Your task to perform on an android device: find photos in the google photos app Image 0: 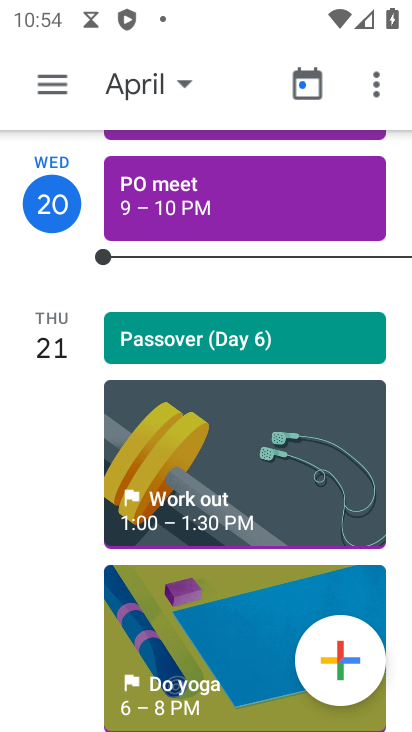
Step 0: press home button
Your task to perform on an android device: find photos in the google photos app Image 1: 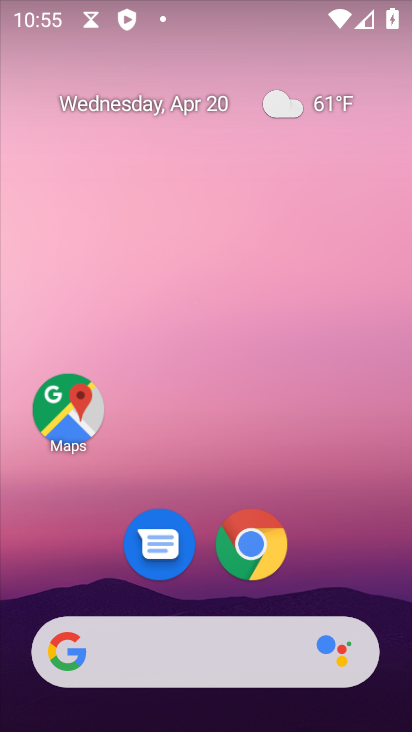
Step 1: drag from (159, 568) to (306, 100)
Your task to perform on an android device: find photos in the google photos app Image 2: 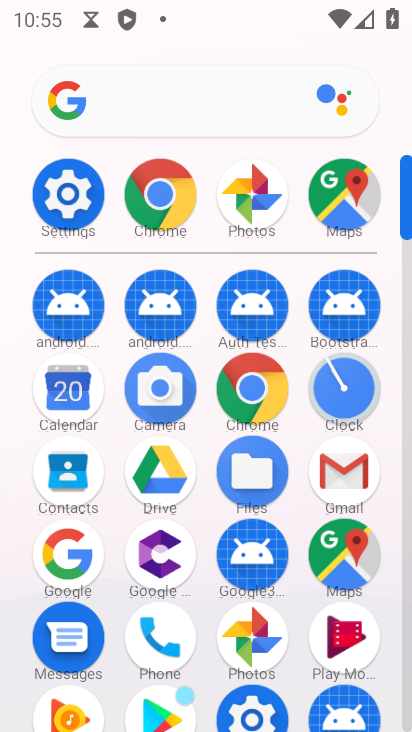
Step 2: click (261, 204)
Your task to perform on an android device: find photos in the google photos app Image 3: 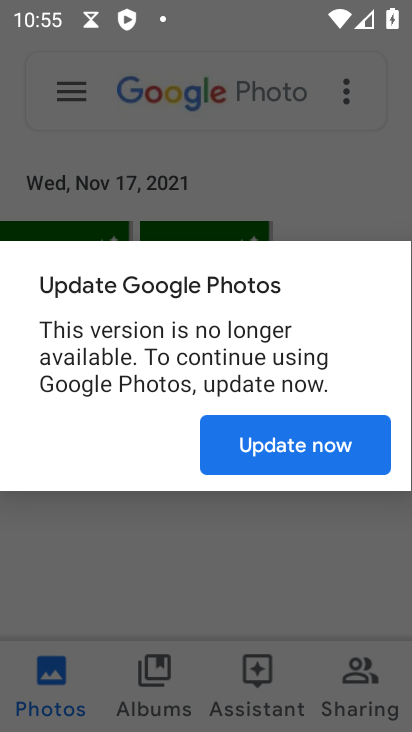
Step 3: click (268, 440)
Your task to perform on an android device: find photos in the google photos app Image 4: 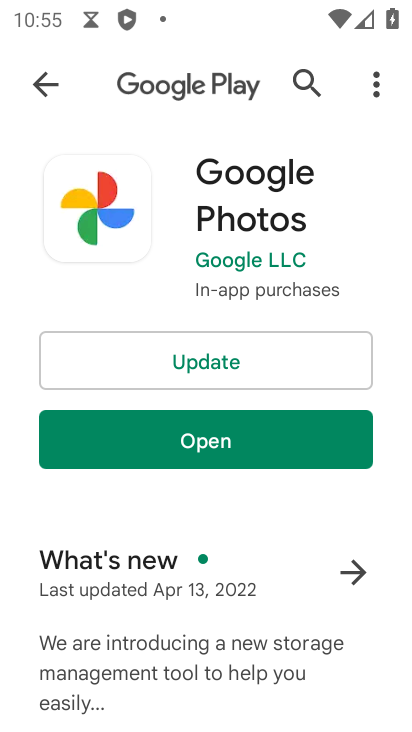
Step 4: click (193, 433)
Your task to perform on an android device: find photos in the google photos app Image 5: 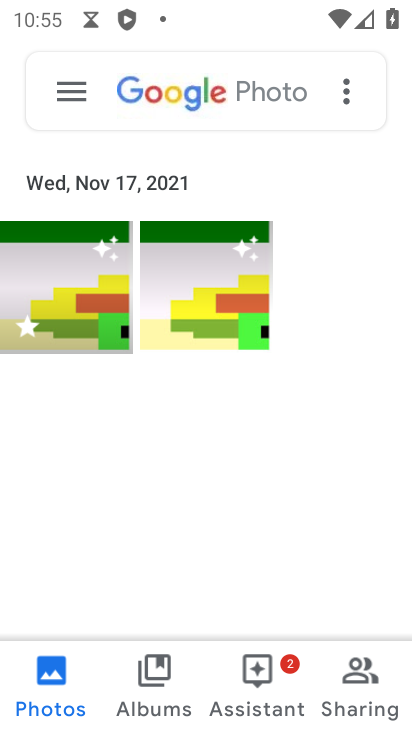
Step 5: task complete